Your task to perform on an android device: turn off notifications settings in the gmail app Image 0: 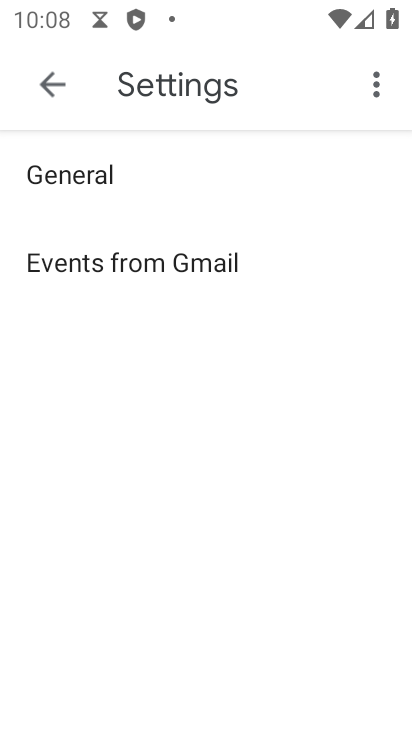
Step 0: press home button
Your task to perform on an android device: turn off notifications settings in the gmail app Image 1: 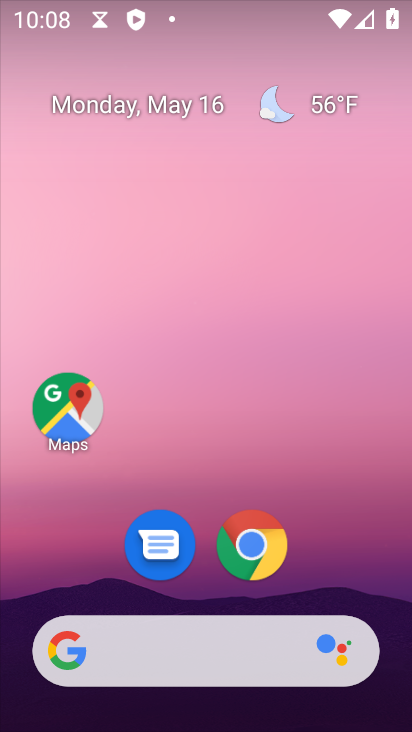
Step 1: drag from (311, 557) to (357, 102)
Your task to perform on an android device: turn off notifications settings in the gmail app Image 2: 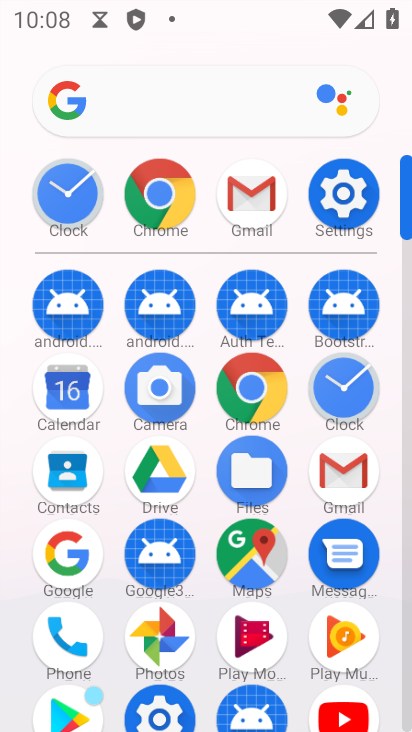
Step 2: click (353, 200)
Your task to perform on an android device: turn off notifications settings in the gmail app Image 3: 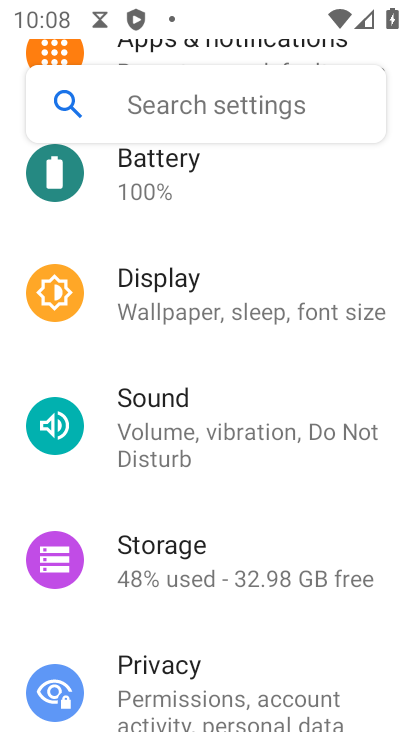
Step 3: drag from (258, 248) to (214, 666)
Your task to perform on an android device: turn off notifications settings in the gmail app Image 4: 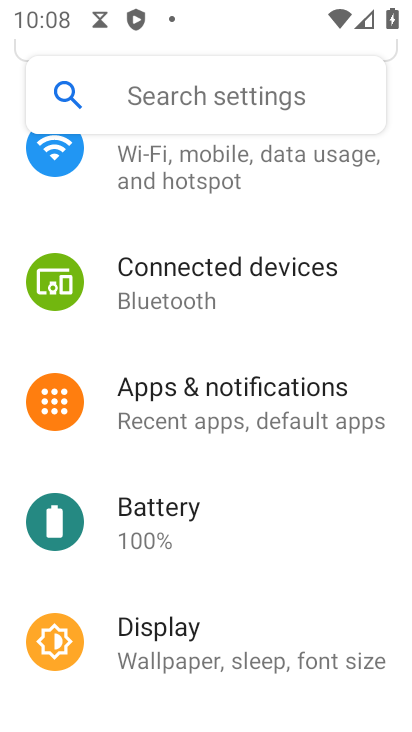
Step 4: drag from (272, 222) to (262, 514)
Your task to perform on an android device: turn off notifications settings in the gmail app Image 5: 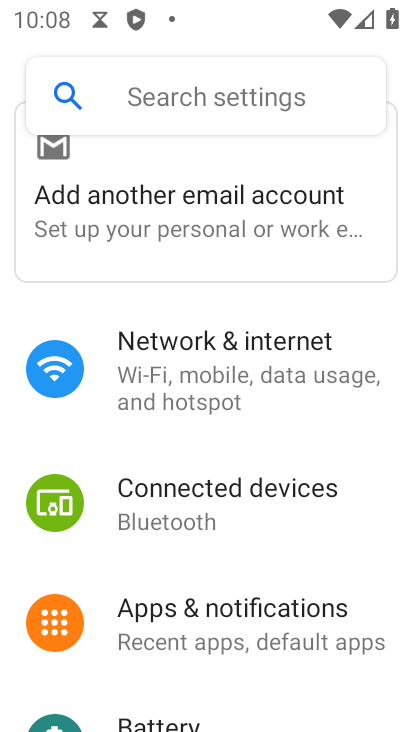
Step 5: click (256, 613)
Your task to perform on an android device: turn off notifications settings in the gmail app Image 6: 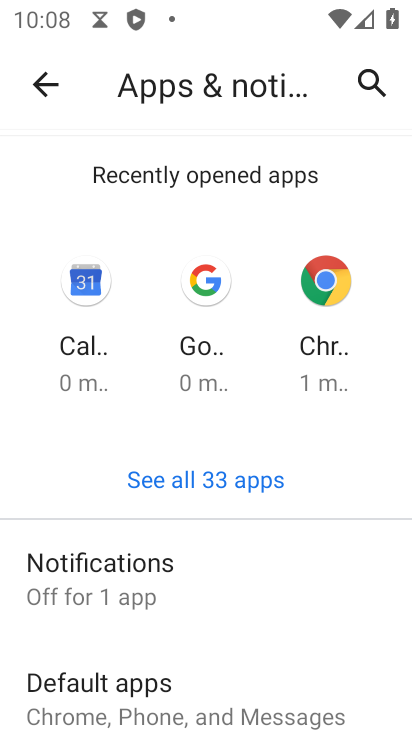
Step 6: click (203, 546)
Your task to perform on an android device: turn off notifications settings in the gmail app Image 7: 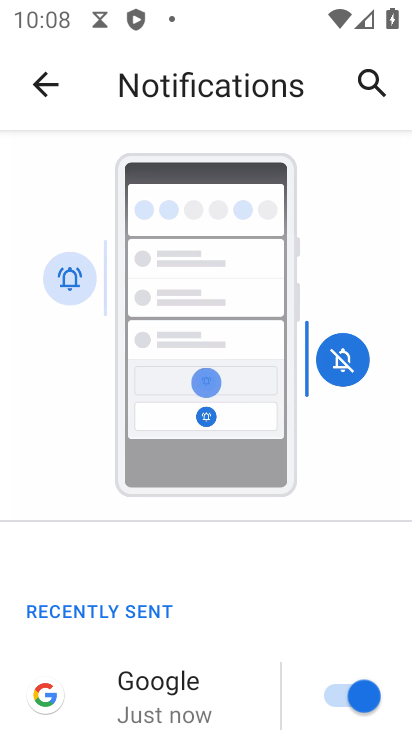
Step 7: drag from (215, 675) to (266, 322)
Your task to perform on an android device: turn off notifications settings in the gmail app Image 8: 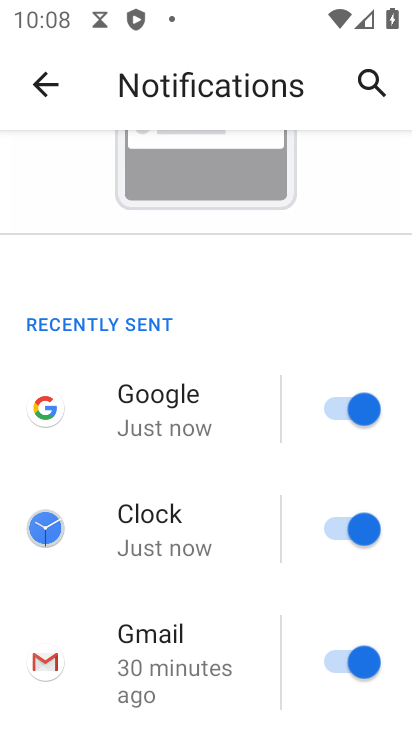
Step 8: click (360, 656)
Your task to perform on an android device: turn off notifications settings in the gmail app Image 9: 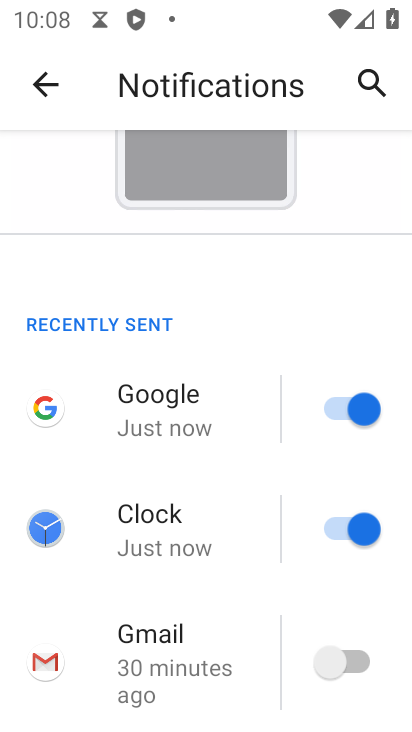
Step 9: task complete